Your task to perform on an android device: open device folders in google photos Image 0: 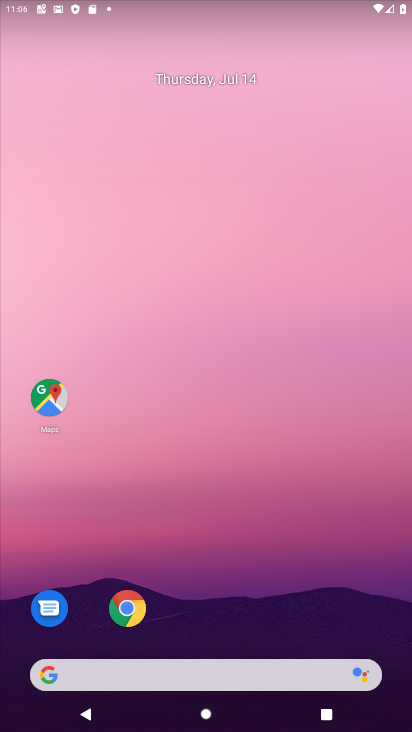
Step 0: drag from (321, 583) to (296, 33)
Your task to perform on an android device: open device folders in google photos Image 1: 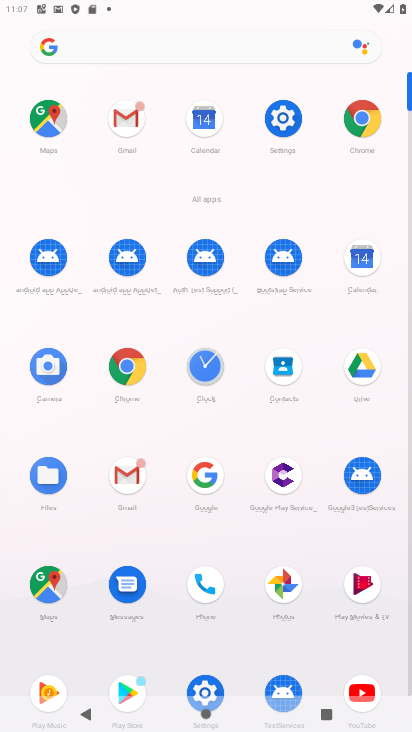
Step 1: click (274, 574)
Your task to perform on an android device: open device folders in google photos Image 2: 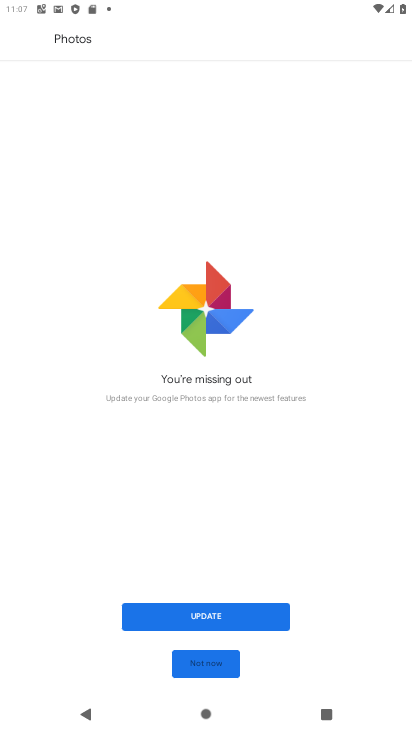
Step 2: click (261, 611)
Your task to perform on an android device: open device folders in google photos Image 3: 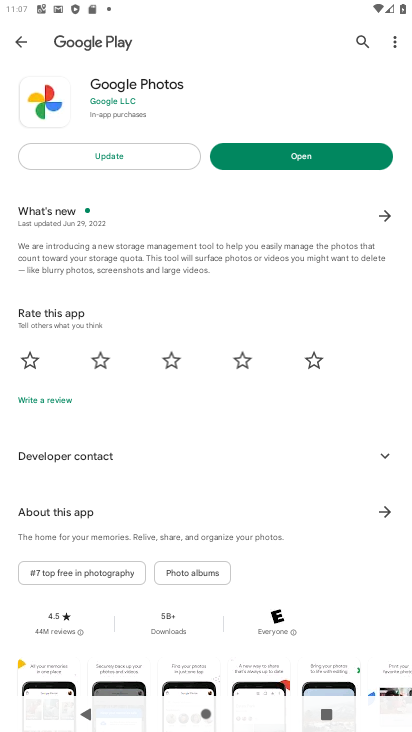
Step 3: click (137, 146)
Your task to perform on an android device: open device folders in google photos Image 4: 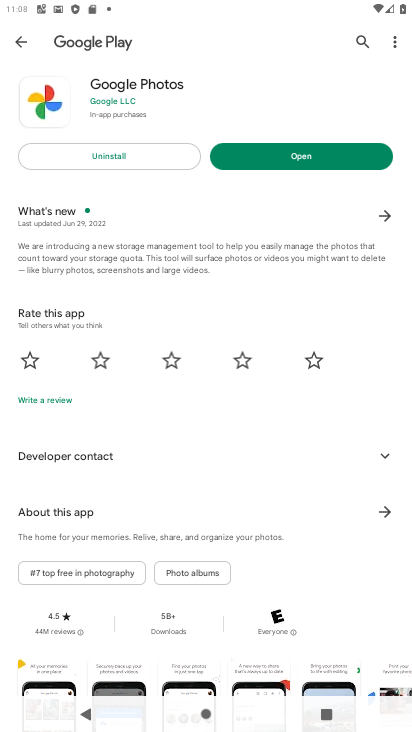
Step 4: click (336, 151)
Your task to perform on an android device: open device folders in google photos Image 5: 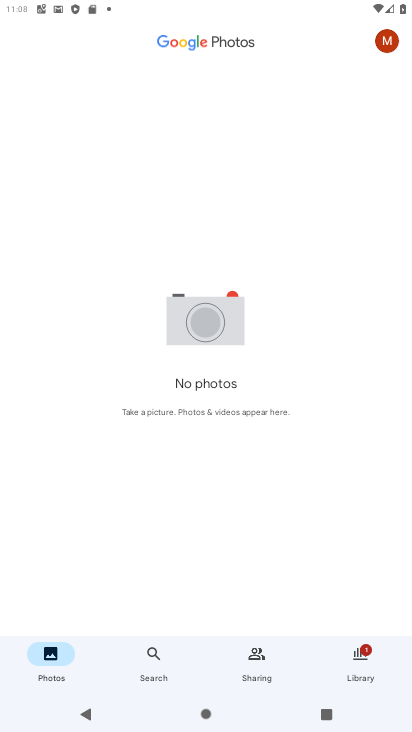
Step 5: click (391, 52)
Your task to perform on an android device: open device folders in google photos Image 6: 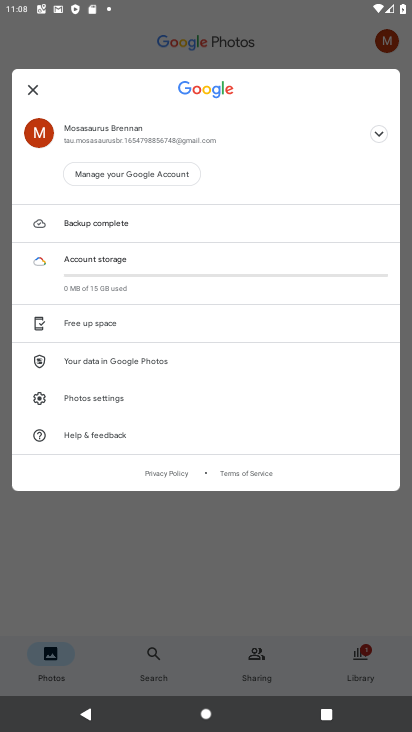
Step 6: click (80, 399)
Your task to perform on an android device: open device folders in google photos Image 7: 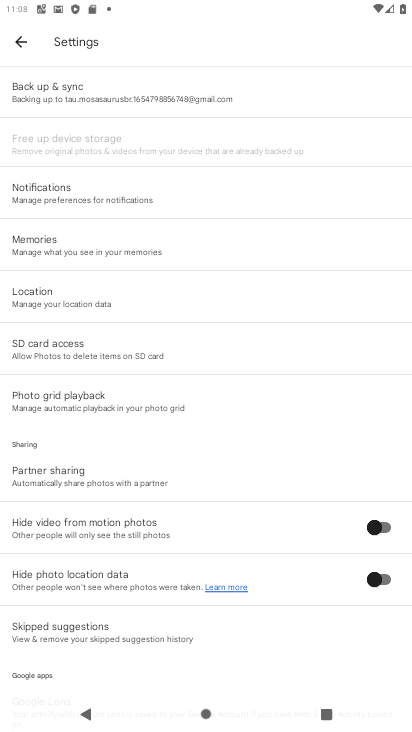
Step 7: task complete